Your task to perform on an android device: add a contact in the contacts app Image 0: 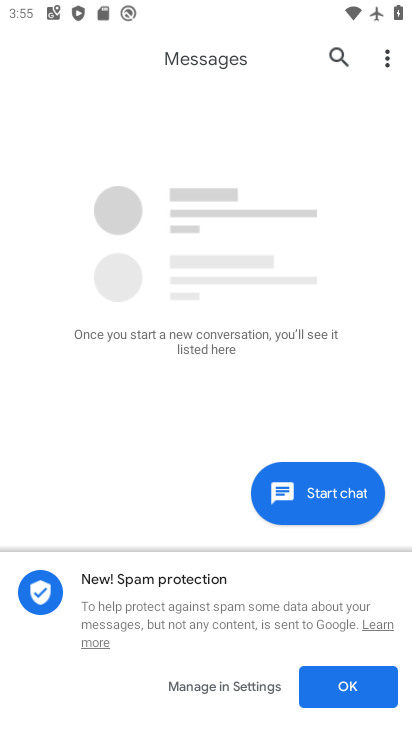
Step 0: press home button
Your task to perform on an android device: add a contact in the contacts app Image 1: 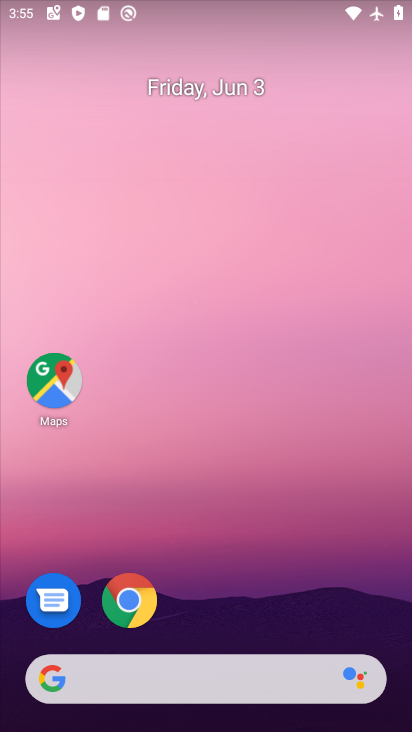
Step 1: drag from (233, 511) to (343, 21)
Your task to perform on an android device: add a contact in the contacts app Image 2: 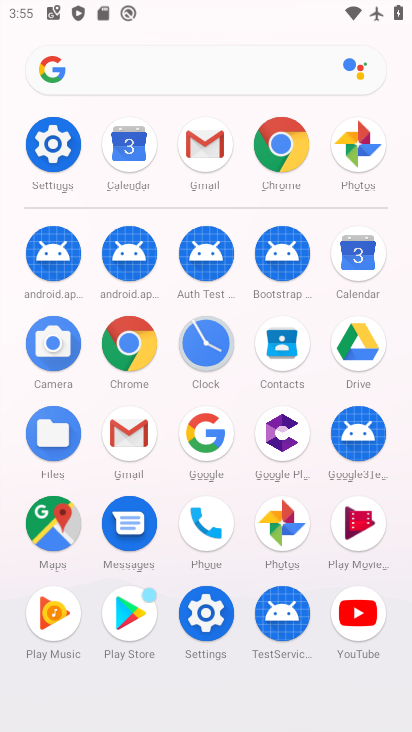
Step 2: click (289, 364)
Your task to perform on an android device: add a contact in the contacts app Image 3: 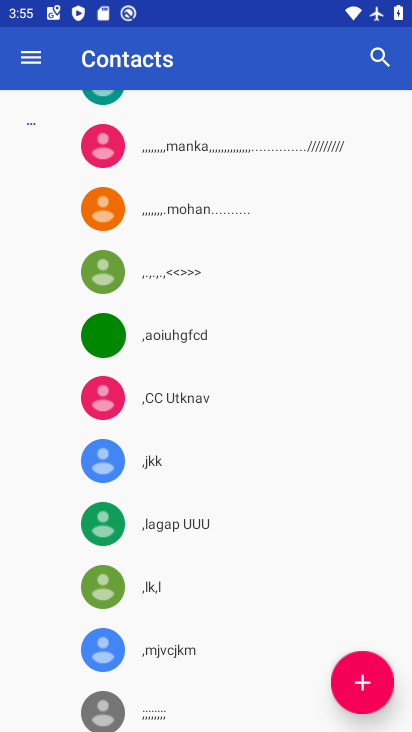
Step 3: click (365, 680)
Your task to perform on an android device: add a contact in the contacts app Image 4: 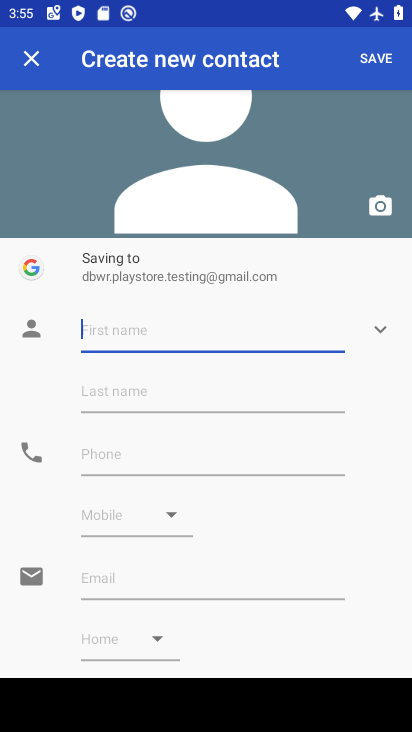
Step 4: type "aflick"
Your task to perform on an android device: add a contact in the contacts app Image 5: 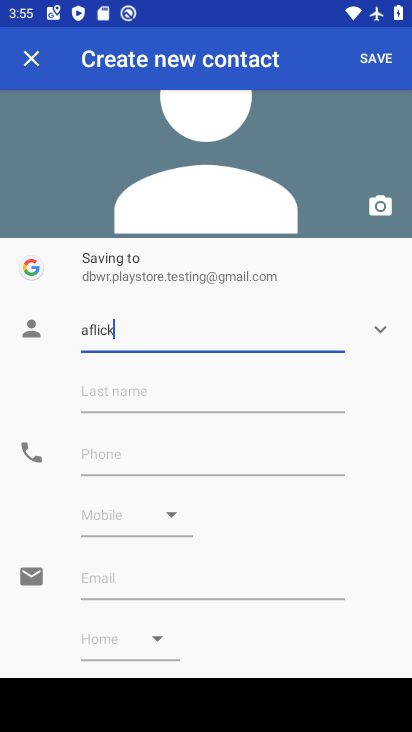
Step 5: click (392, 53)
Your task to perform on an android device: add a contact in the contacts app Image 6: 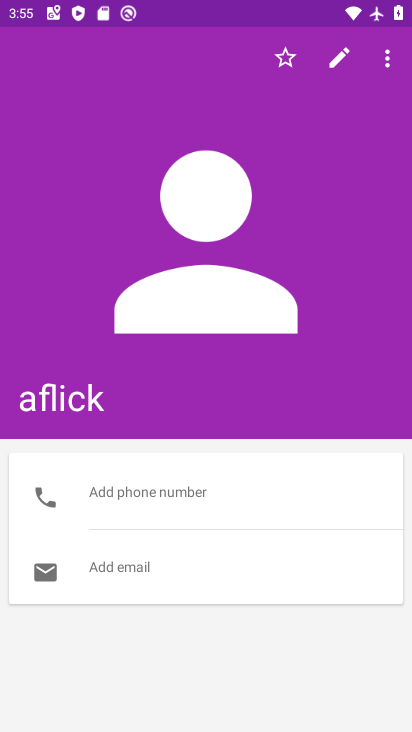
Step 6: task complete